Your task to perform on an android device: Go to Wikipedia Image 0: 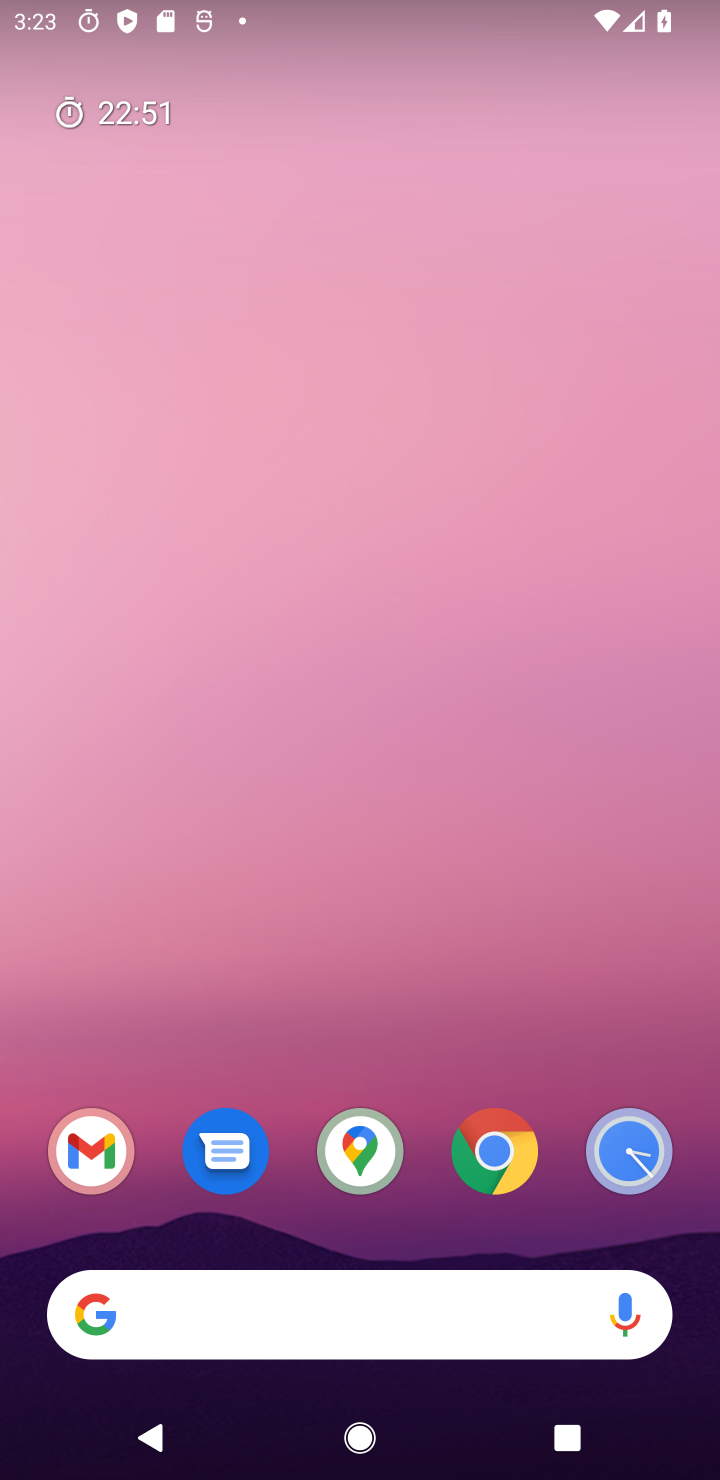
Step 0: press home button
Your task to perform on an android device: Go to Wikipedia Image 1: 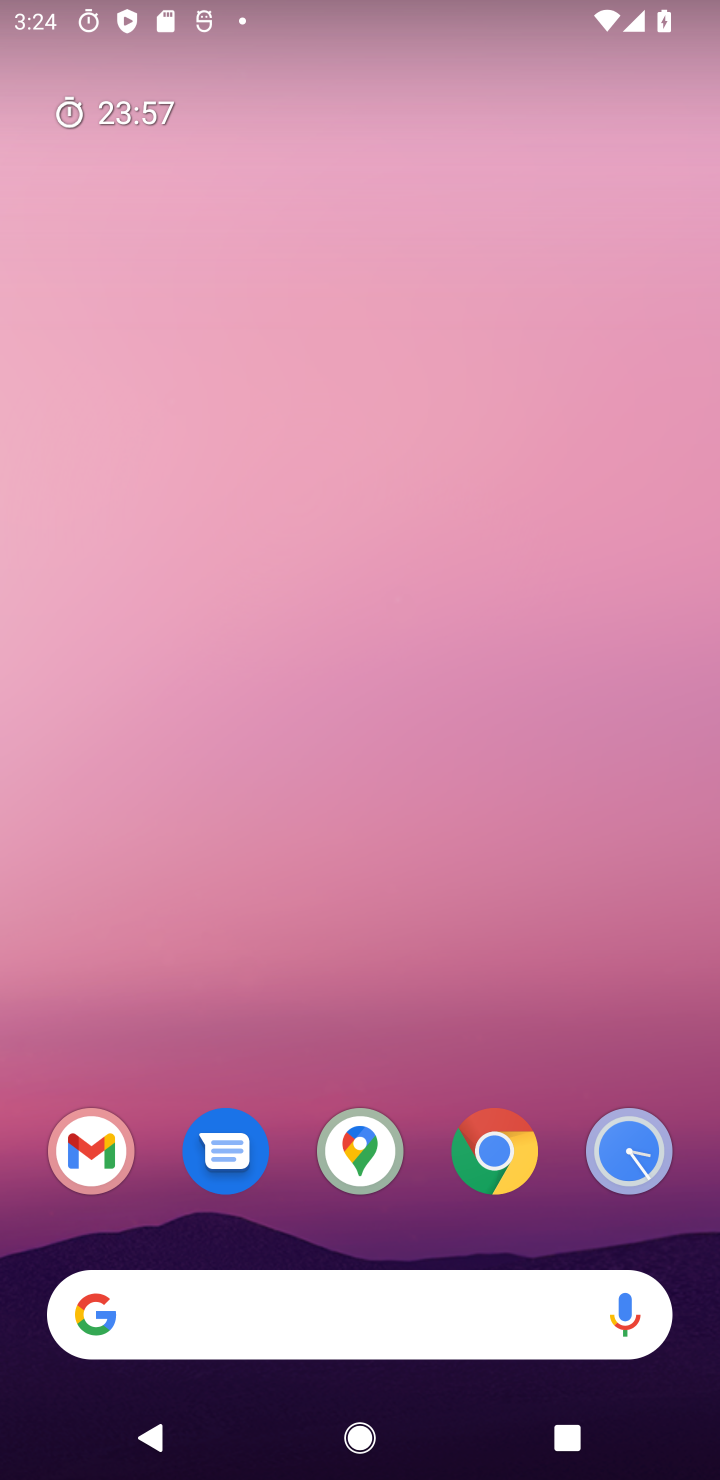
Step 1: click (494, 1148)
Your task to perform on an android device: Go to Wikipedia Image 2: 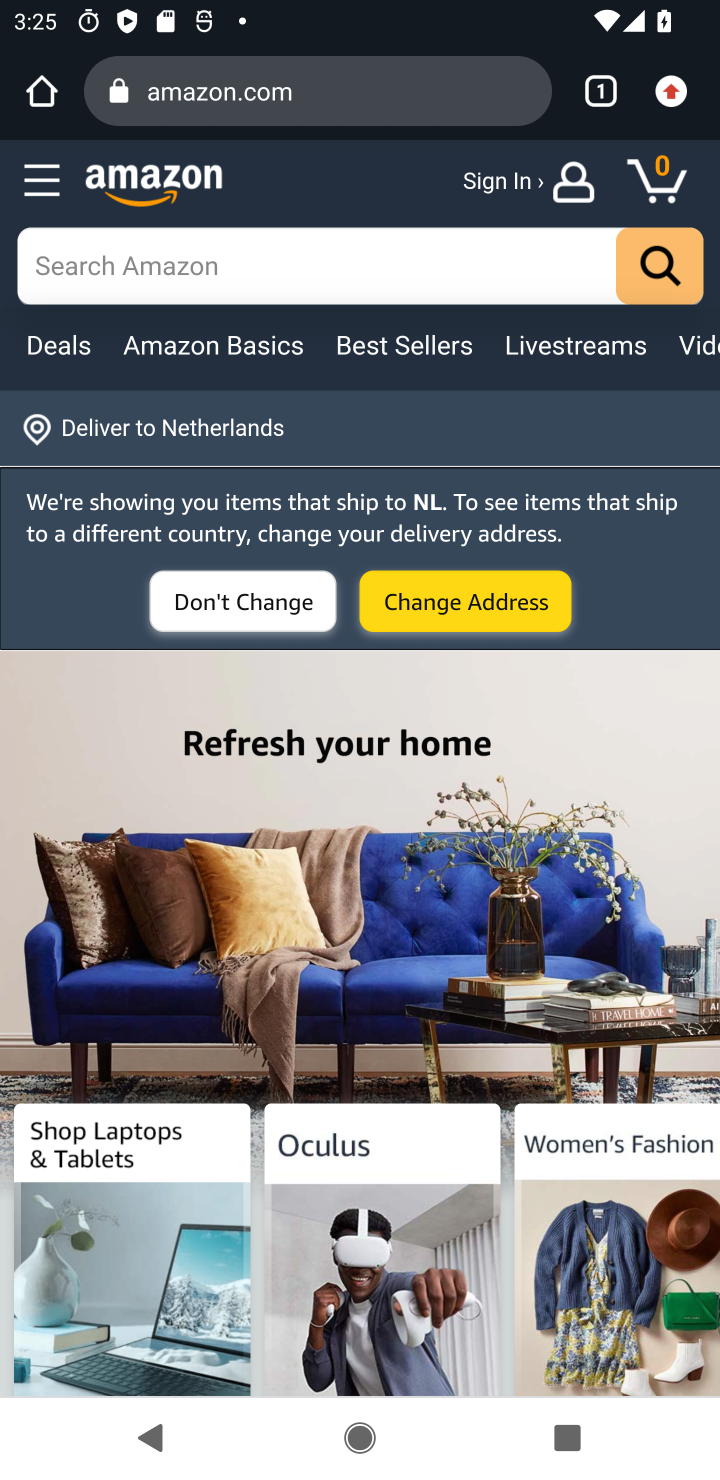
Step 2: click (391, 94)
Your task to perform on an android device: Go to Wikipedia Image 3: 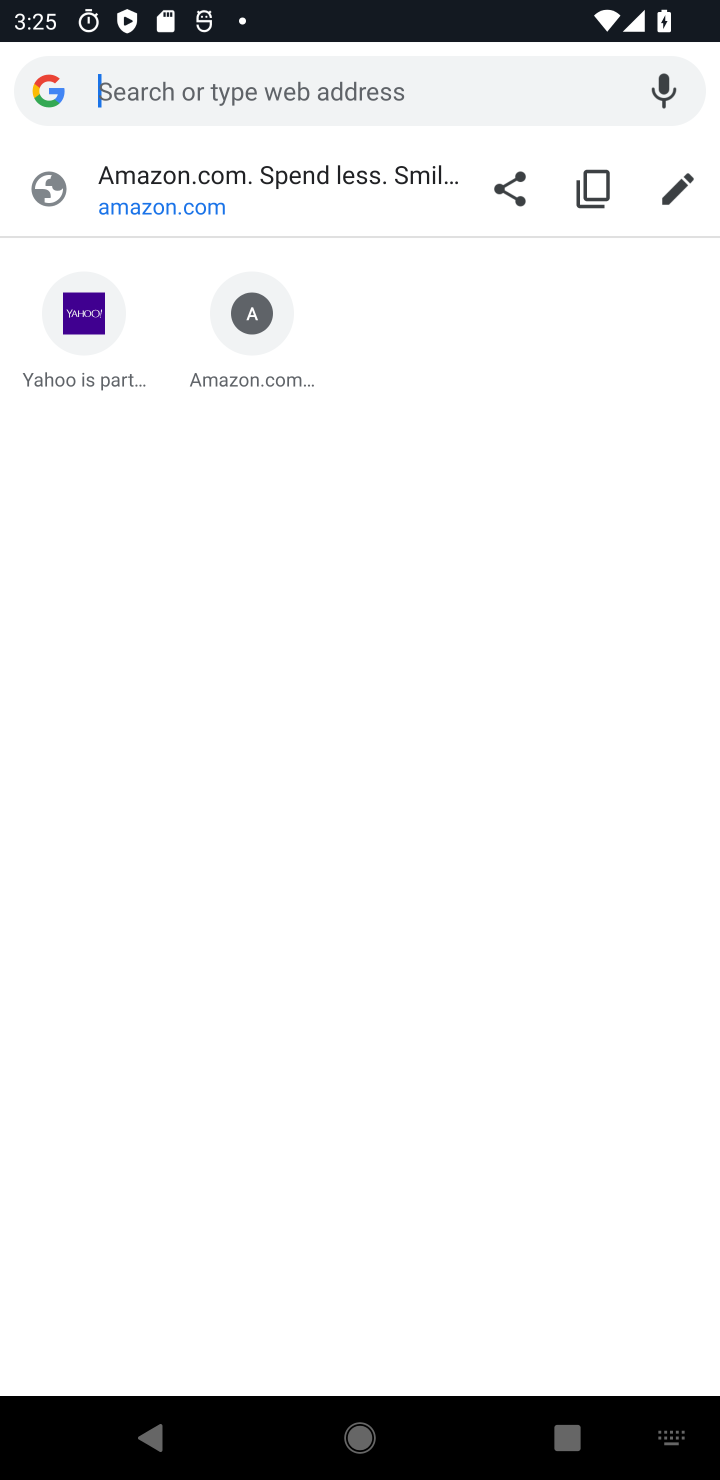
Step 3: type "Wikipedia"
Your task to perform on an android device: Go to Wikipedia Image 4: 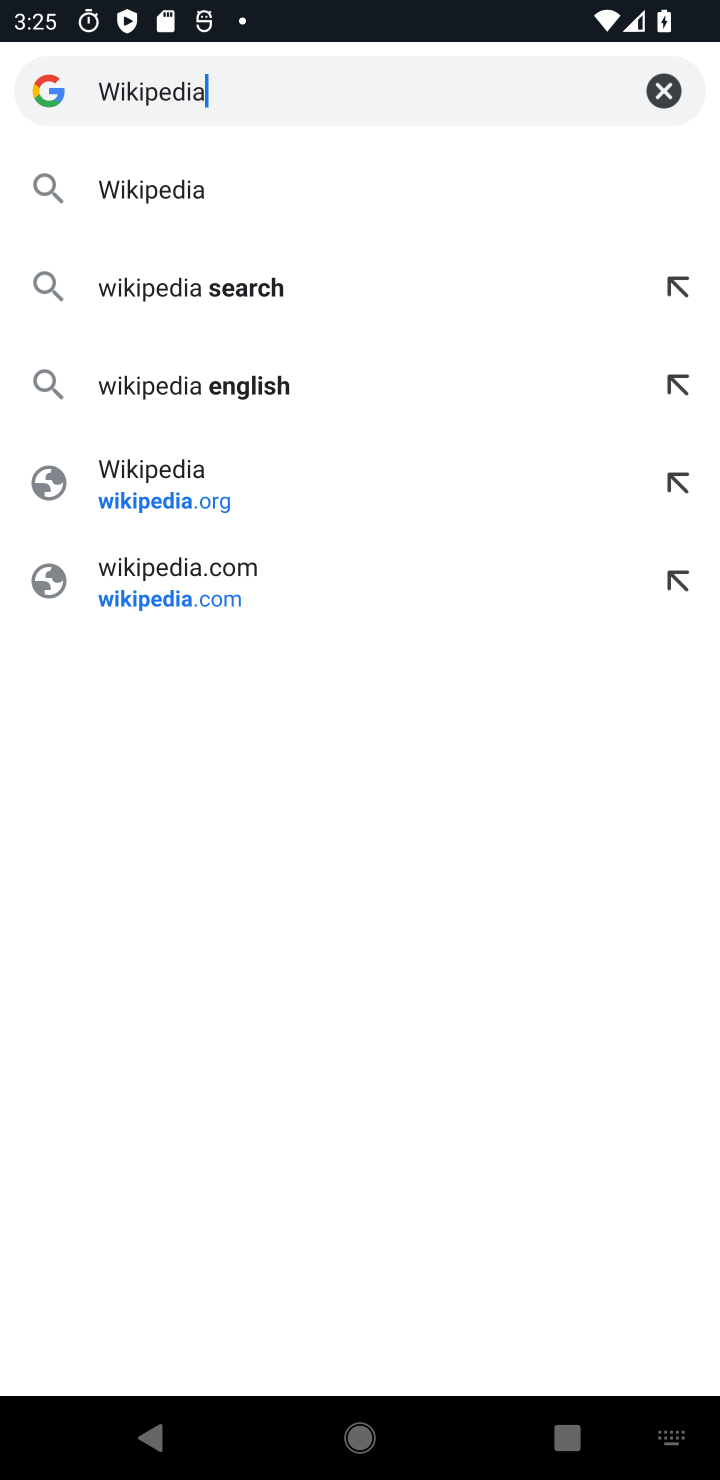
Step 4: click (188, 502)
Your task to perform on an android device: Go to Wikipedia Image 5: 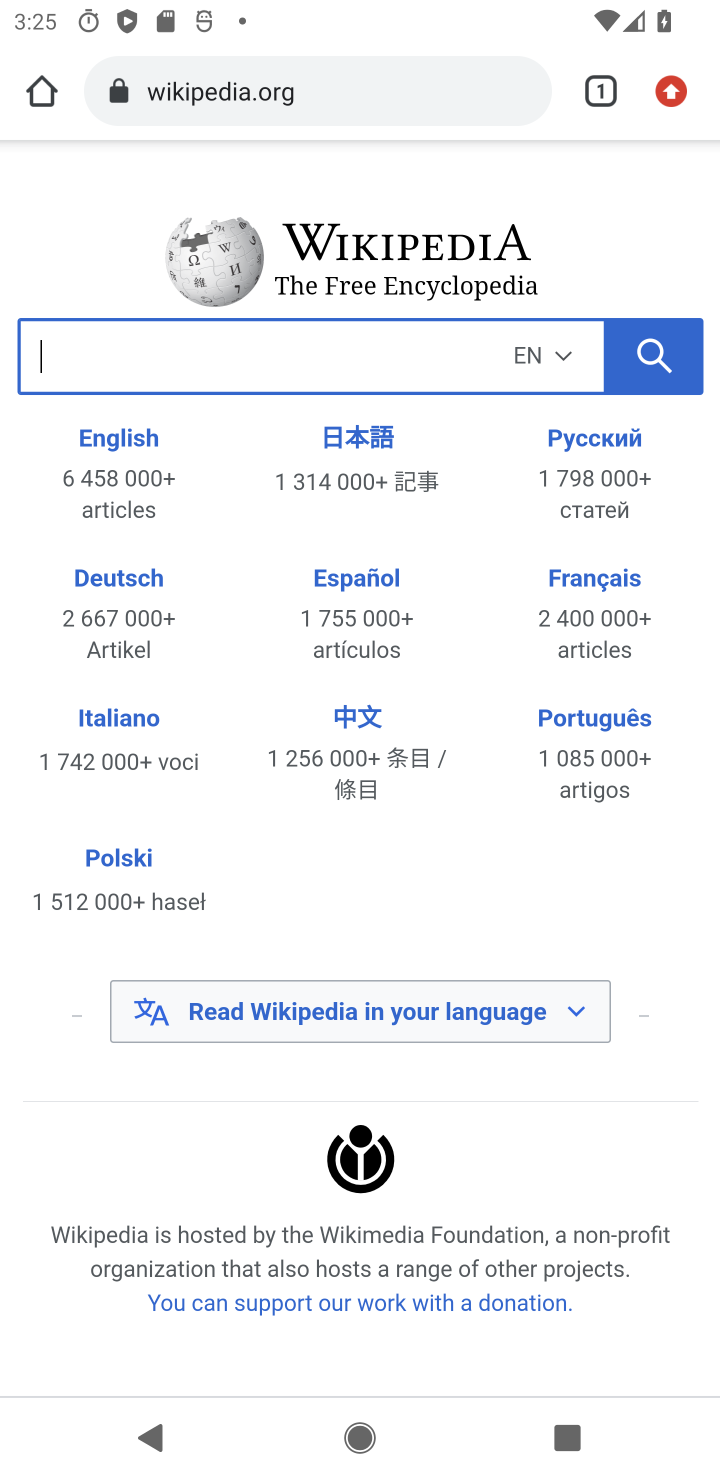
Step 5: task complete